Your task to perform on an android device: Open battery settings Image 0: 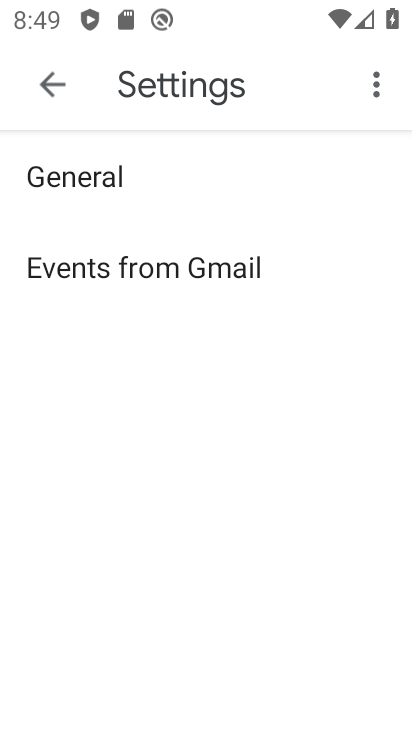
Step 0: press home button
Your task to perform on an android device: Open battery settings Image 1: 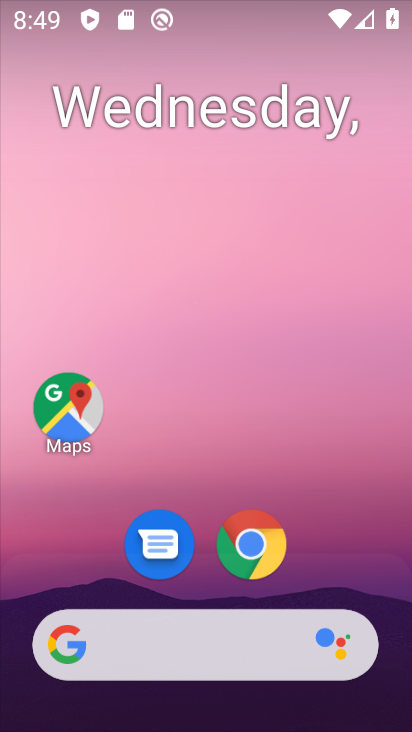
Step 1: drag from (186, 591) to (187, 38)
Your task to perform on an android device: Open battery settings Image 2: 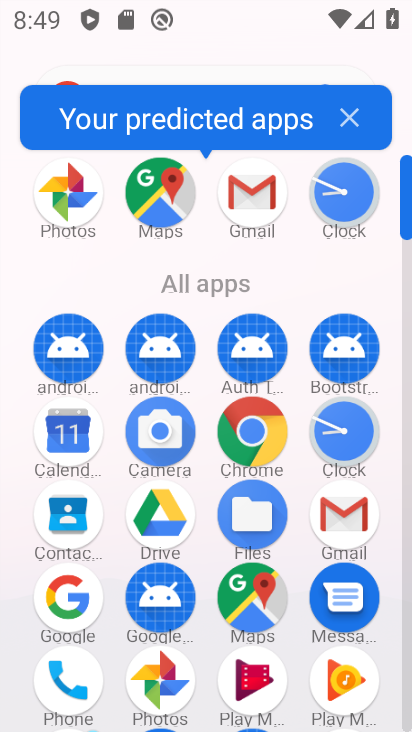
Step 2: click (115, 571)
Your task to perform on an android device: Open battery settings Image 3: 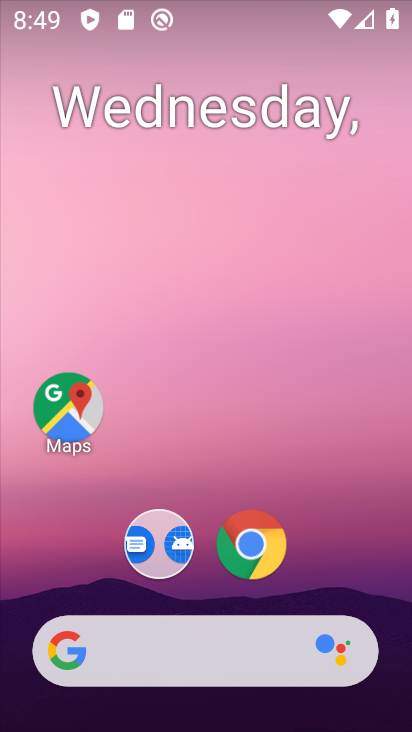
Step 3: drag from (90, 580) to (280, 30)
Your task to perform on an android device: Open battery settings Image 4: 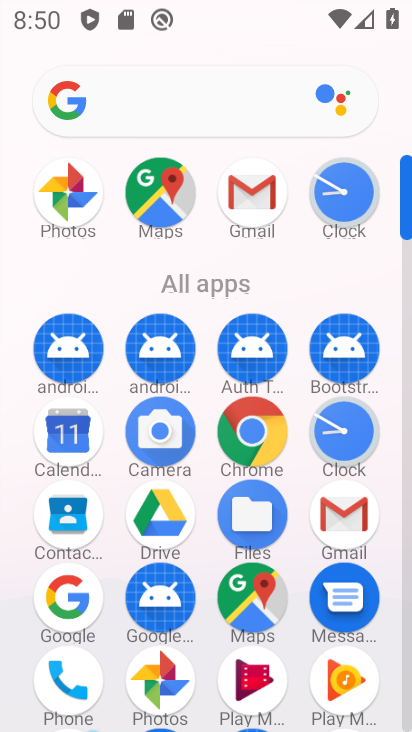
Step 4: drag from (212, 565) to (205, 256)
Your task to perform on an android device: Open battery settings Image 5: 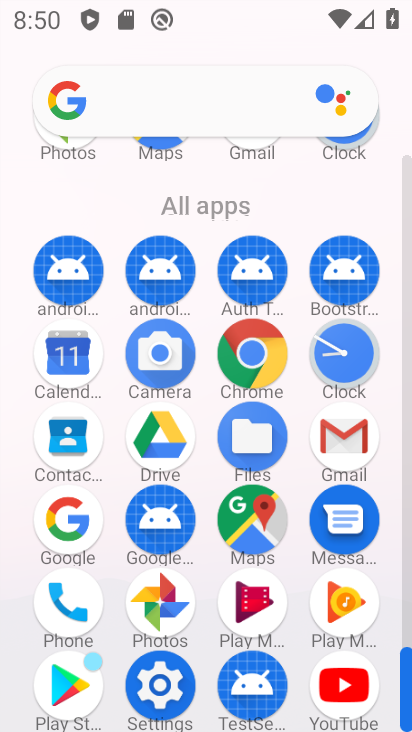
Step 5: click (139, 697)
Your task to perform on an android device: Open battery settings Image 6: 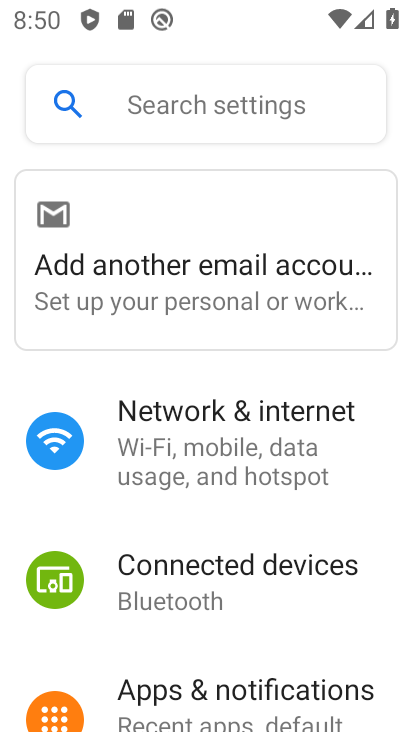
Step 6: click (166, 673)
Your task to perform on an android device: Open battery settings Image 7: 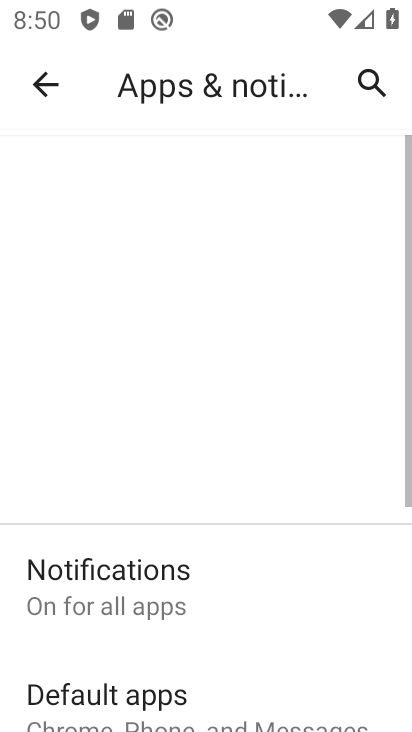
Step 7: click (42, 76)
Your task to perform on an android device: Open battery settings Image 8: 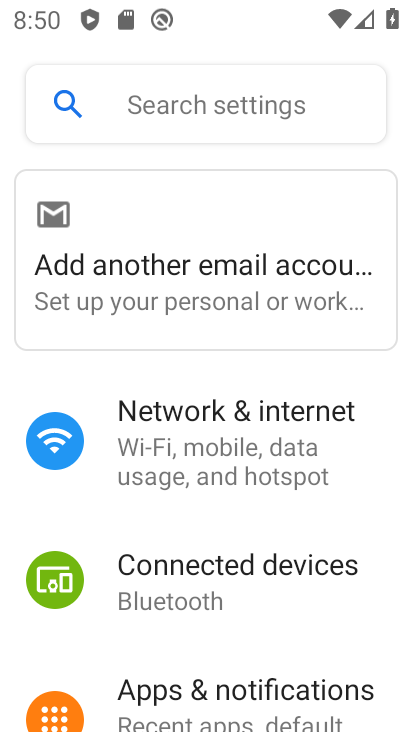
Step 8: drag from (39, 492) to (38, 168)
Your task to perform on an android device: Open battery settings Image 9: 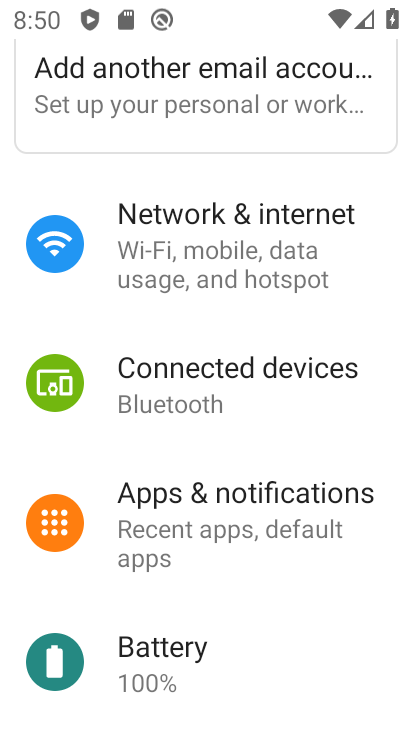
Step 9: click (166, 682)
Your task to perform on an android device: Open battery settings Image 10: 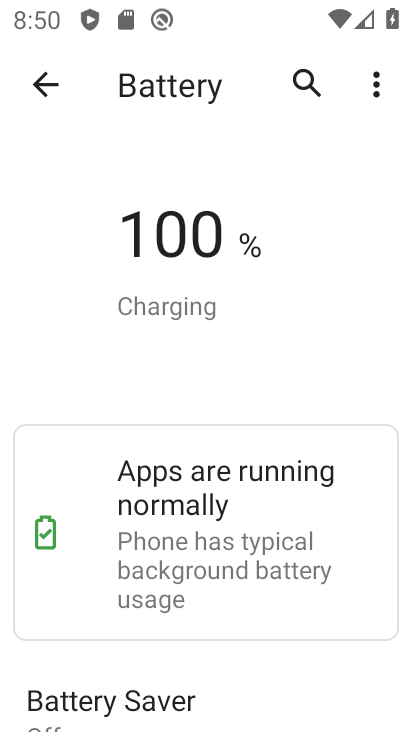
Step 10: task complete